Your task to perform on an android device: turn pop-ups on in chrome Image 0: 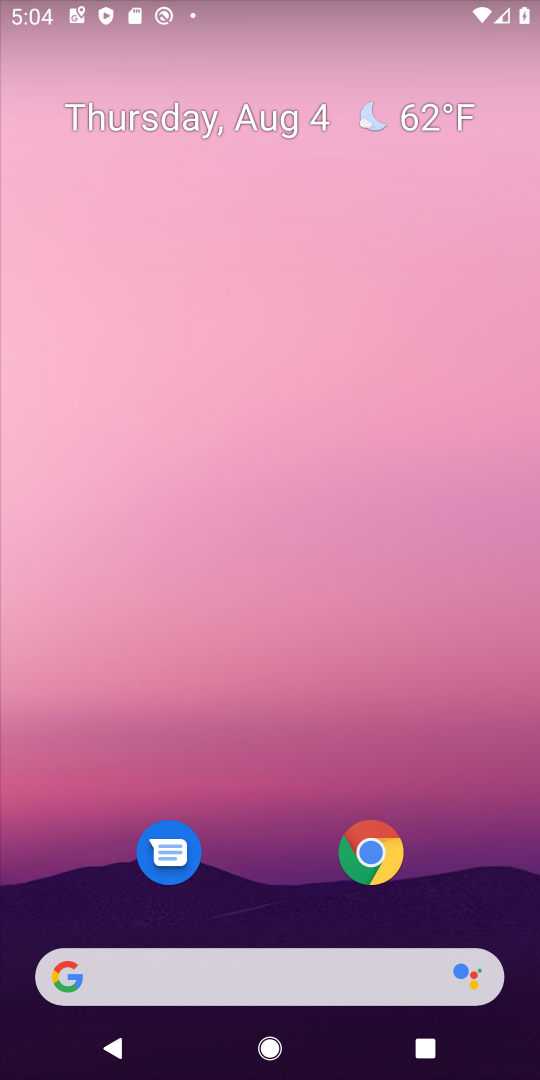
Step 0: press home button
Your task to perform on an android device: turn pop-ups on in chrome Image 1: 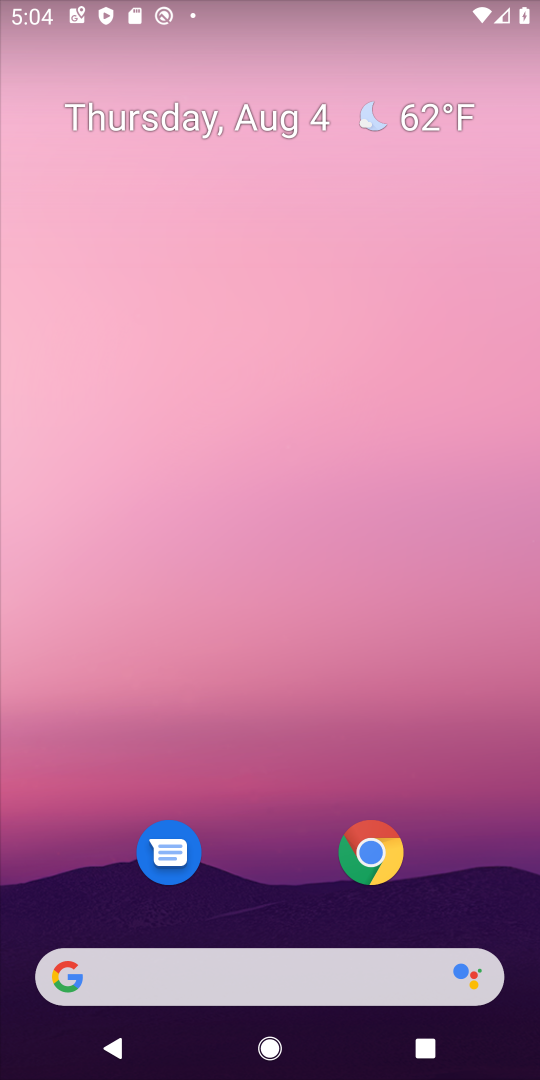
Step 1: click (381, 852)
Your task to perform on an android device: turn pop-ups on in chrome Image 2: 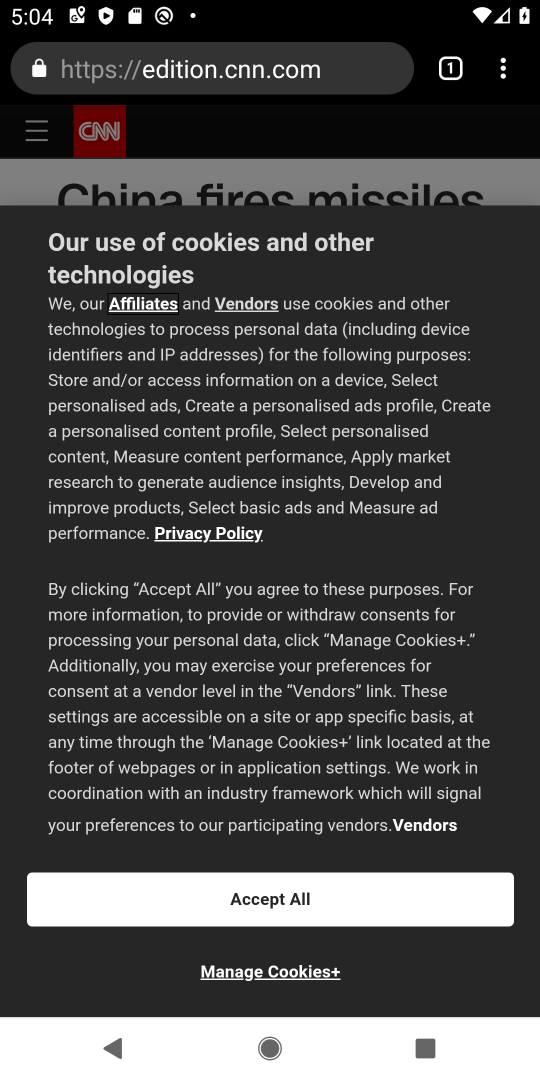
Step 2: click (504, 88)
Your task to perform on an android device: turn pop-ups on in chrome Image 3: 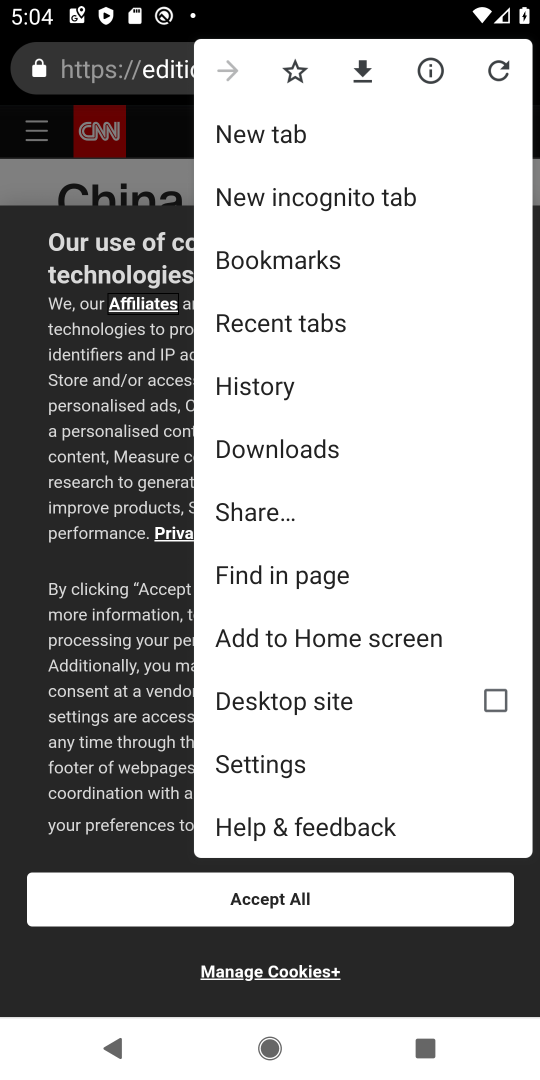
Step 3: click (280, 762)
Your task to perform on an android device: turn pop-ups on in chrome Image 4: 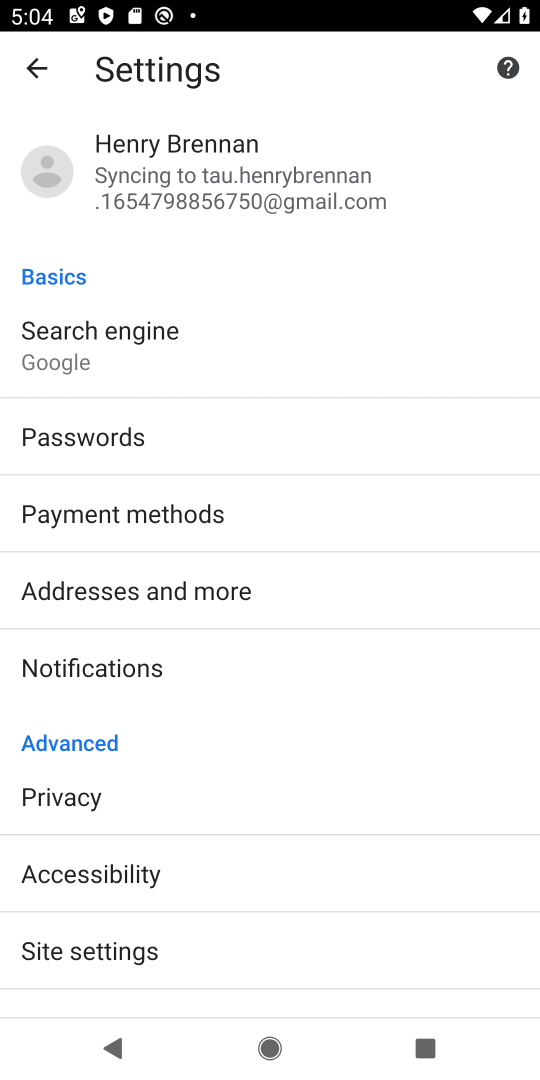
Step 4: drag from (95, 914) to (105, 526)
Your task to perform on an android device: turn pop-ups on in chrome Image 5: 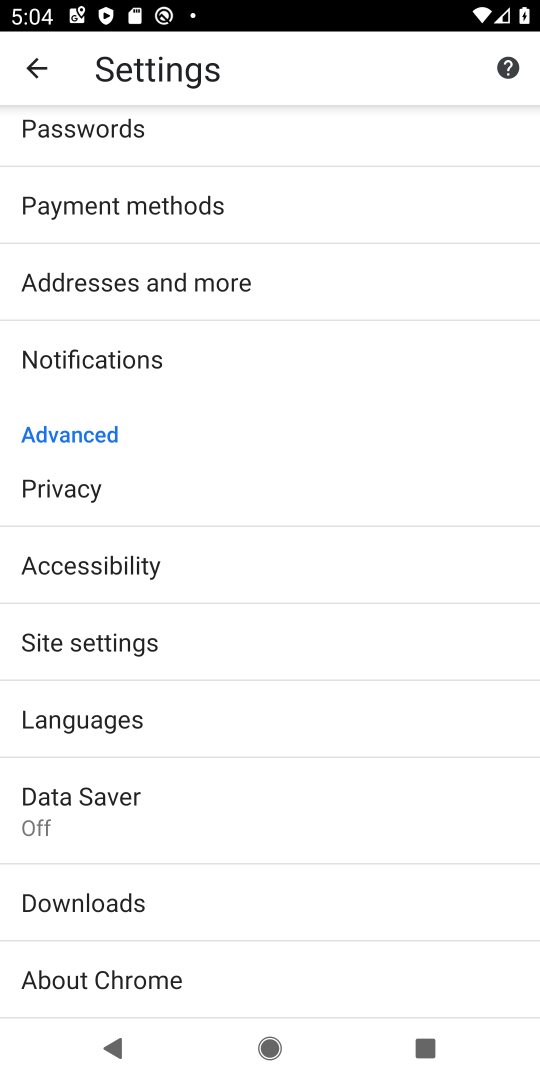
Step 5: click (88, 630)
Your task to perform on an android device: turn pop-ups on in chrome Image 6: 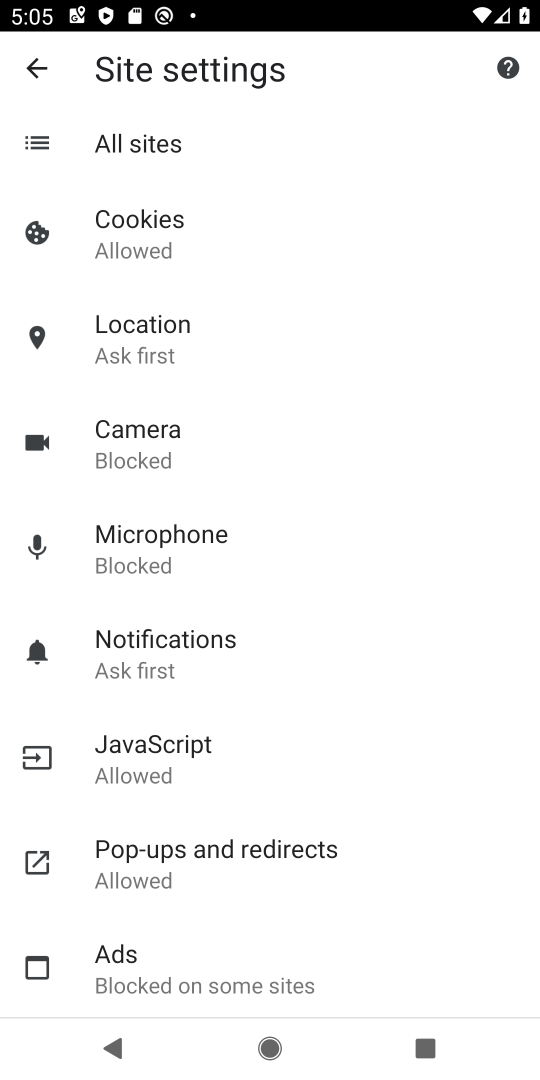
Step 6: click (144, 847)
Your task to perform on an android device: turn pop-ups on in chrome Image 7: 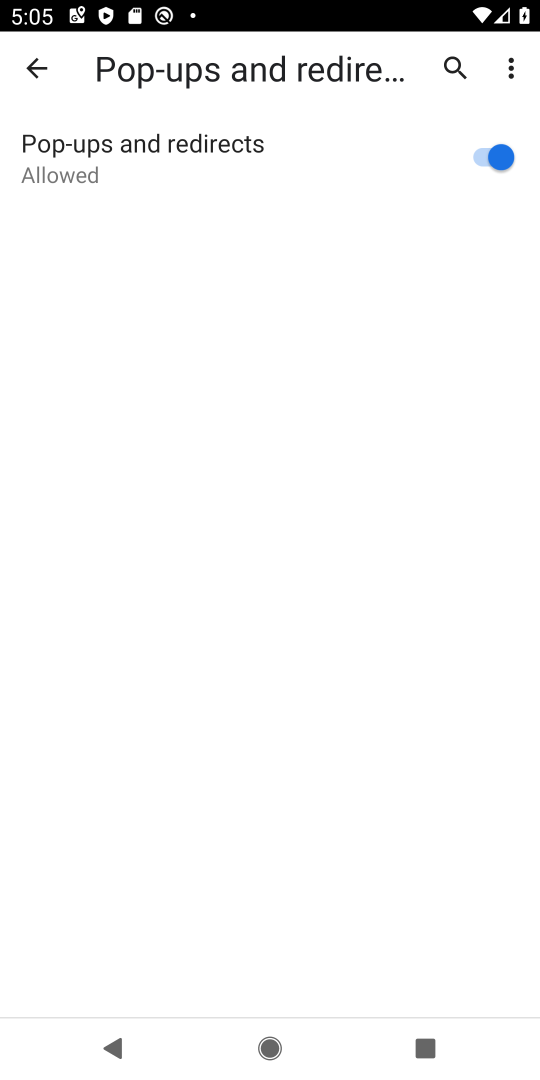
Step 7: task complete